Your task to perform on an android device: open device folders in google photos Image 0: 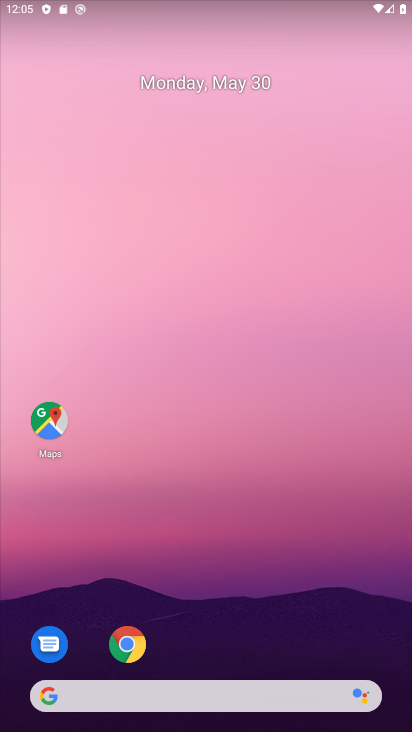
Step 0: drag from (226, 580) to (297, 266)
Your task to perform on an android device: open device folders in google photos Image 1: 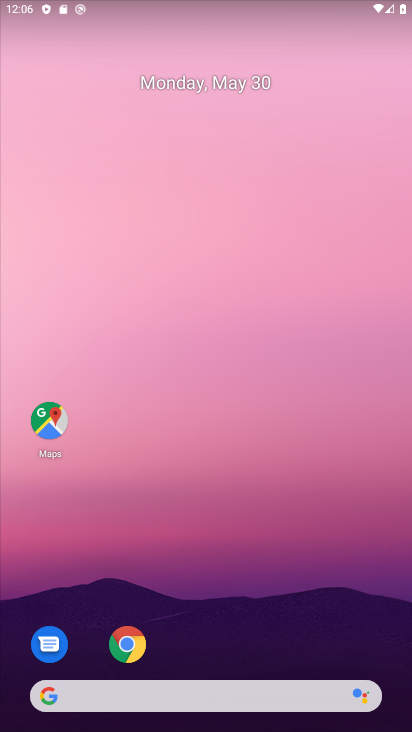
Step 1: drag from (198, 660) to (295, 101)
Your task to perform on an android device: open device folders in google photos Image 2: 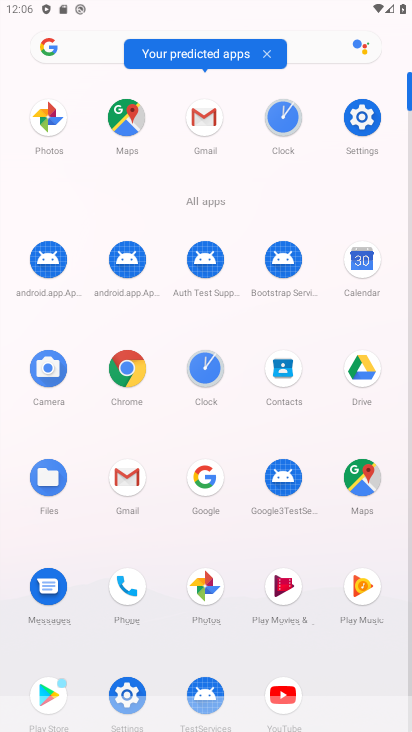
Step 2: click (198, 593)
Your task to perform on an android device: open device folders in google photos Image 3: 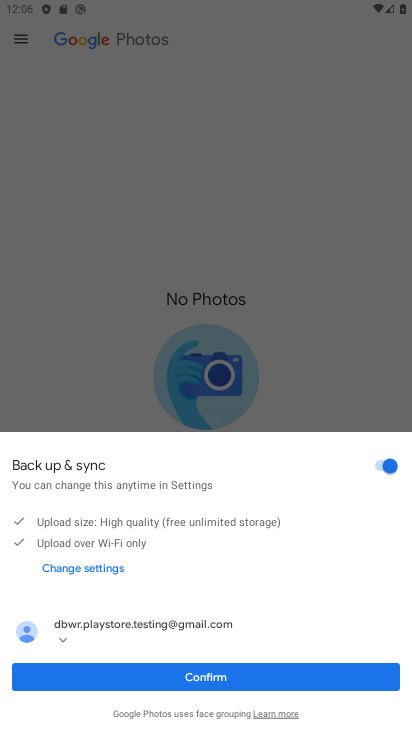
Step 3: click (193, 678)
Your task to perform on an android device: open device folders in google photos Image 4: 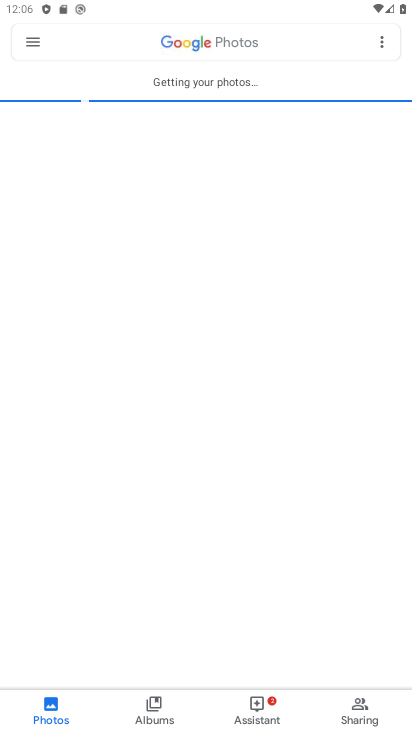
Step 4: click (41, 47)
Your task to perform on an android device: open device folders in google photos Image 5: 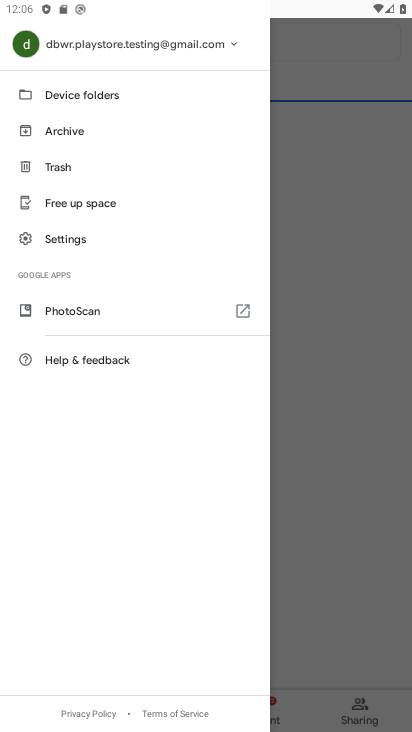
Step 5: click (145, 100)
Your task to perform on an android device: open device folders in google photos Image 6: 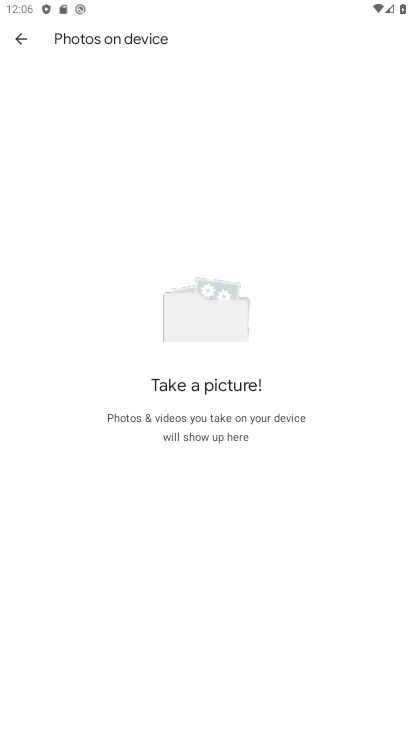
Step 6: task complete